Your task to perform on an android device: move a message to another label in the gmail app Image 0: 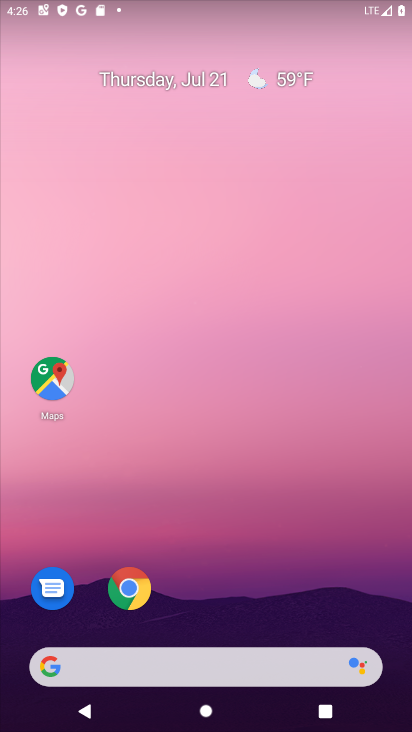
Step 0: drag from (254, 724) to (261, 123)
Your task to perform on an android device: move a message to another label in the gmail app Image 1: 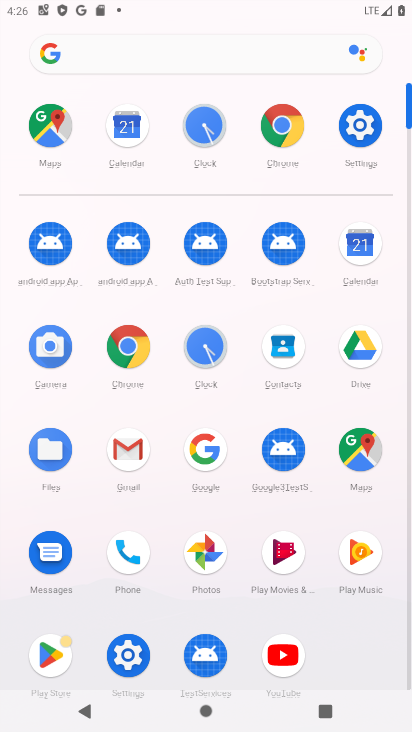
Step 1: click (120, 441)
Your task to perform on an android device: move a message to another label in the gmail app Image 2: 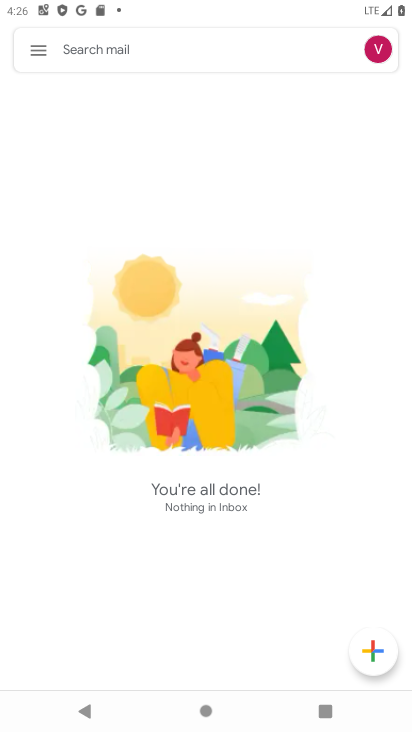
Step 2: task complete